Your task to perform on an android device: Go to Google maps Image 0: 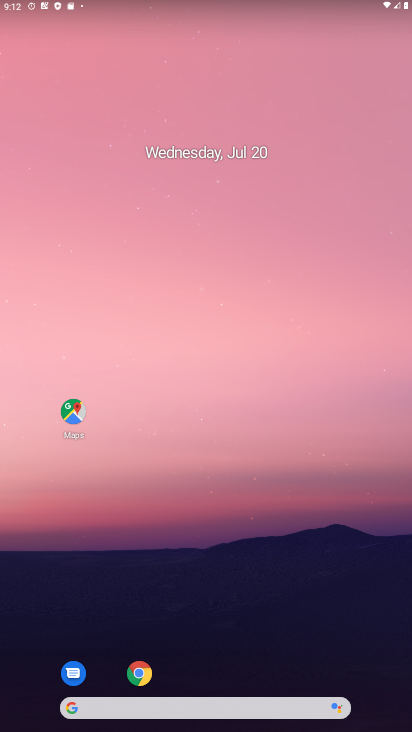
Step 0: drag from (364, 658) to (123, 48)
Your task to perform on an android device: Go to Google maps Image 1: 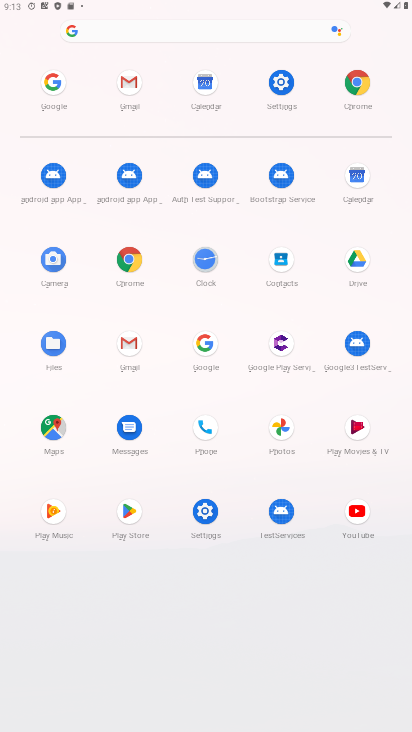
Step 1: click (51, 418)
Your task to perform on an android device: Go to Google maps Image 2: 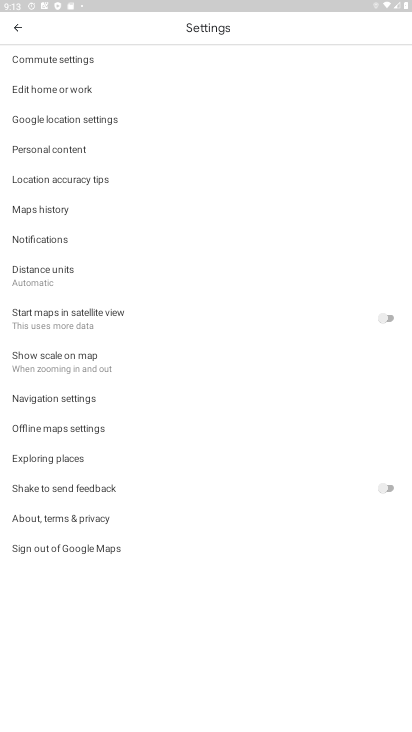
Step 2: task complete